Your task to perform on an android device: Show me productivity apps on the Play Store Image 0: 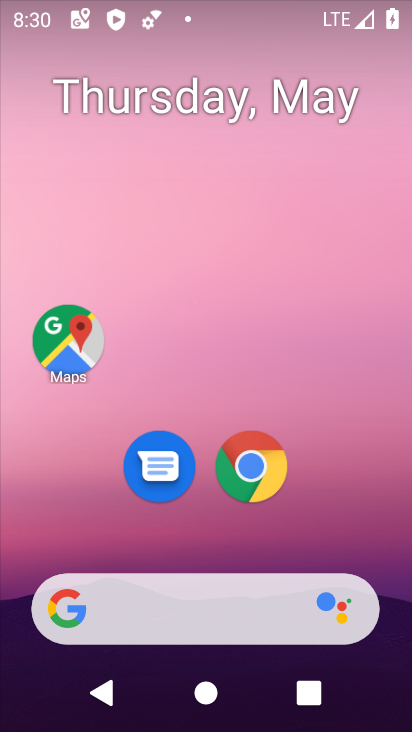
Step 0: drag from (387, 581) to (369, 31)
Your task to perform on an android device: Show me productivity apps on the Play Store Image 1: 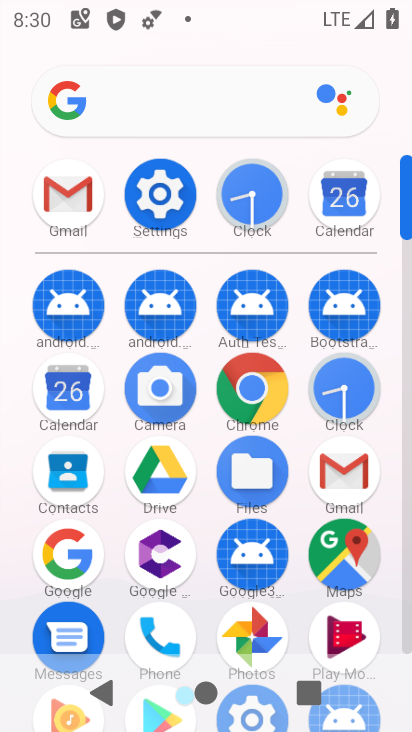
Step 1: click (405, 478)
Your task to perform on an android device: Show me productivity apps on the Play Store Image 2: 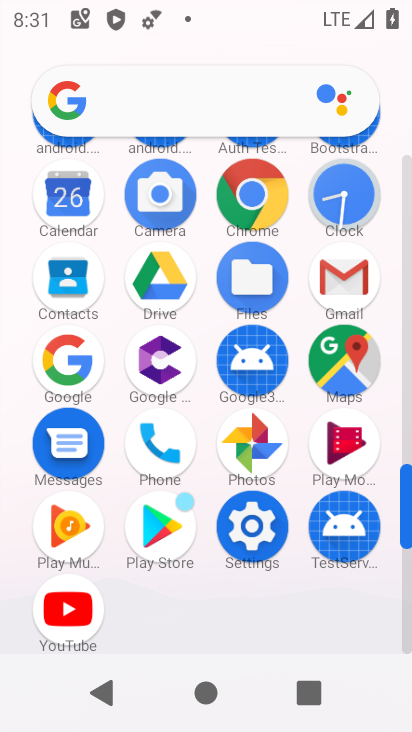
Step 2: click (150, 532)
Your task to perform on an android device: Show me productivity apps on the Play Store Image 3: 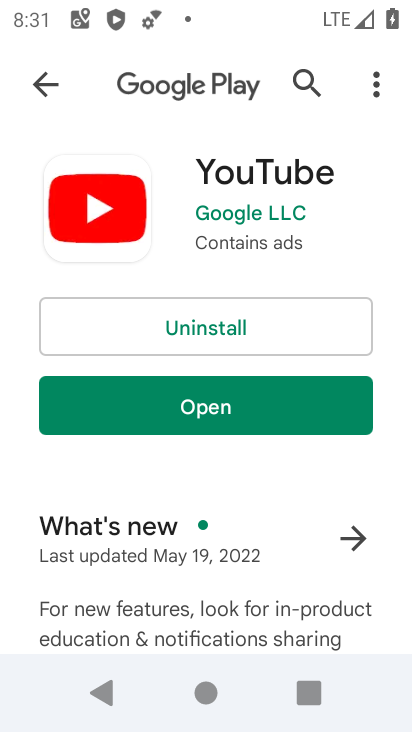
Step 3: click (46, 89)
Your task to perform on an android device: Show me productivity apps on the Play Store Image 4: 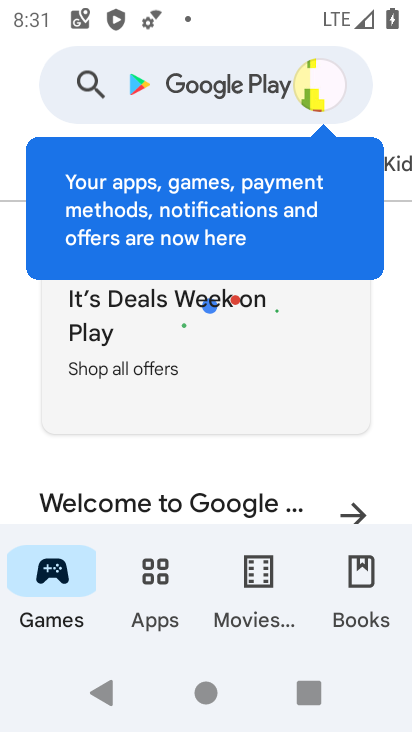
Step 4: click (136, 614)
Your task to perform on an android device: Show me productivity apps on the Play Store Image 5: 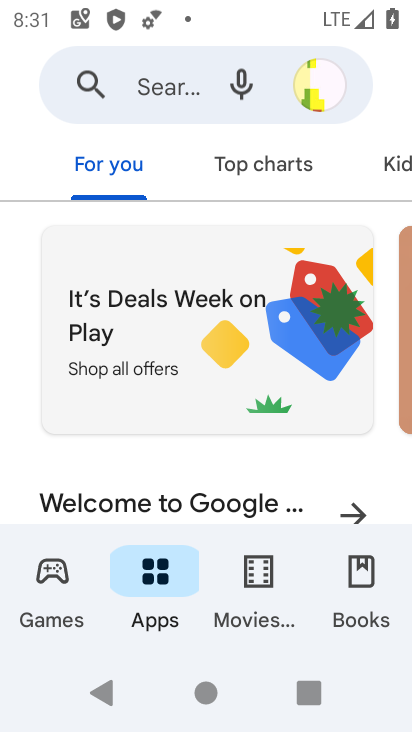
Step 5: drag from (231, 482) to (196, 127)
Your task to perform on an android device: Show me productivity apps on the Play Store Image 6: 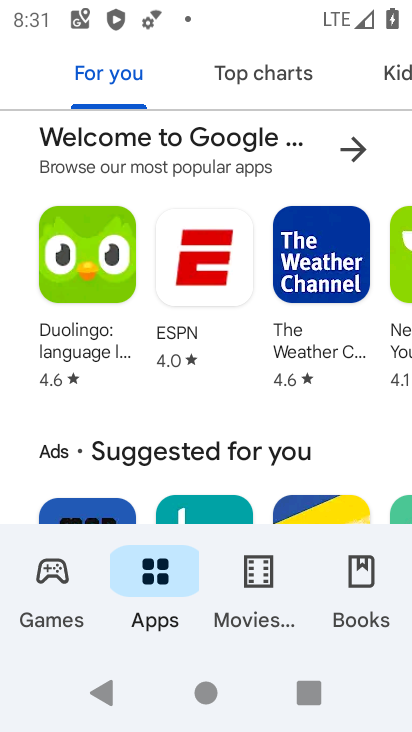
Step 6: drag from (211, 397) to (190, 90)
Your task to perform on an android device: Show me productivity apps on the Play Store Image 7: 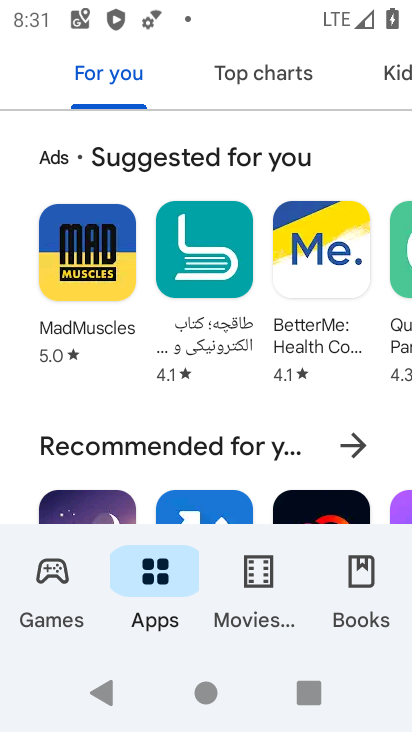
Step 7: drag from (237, 400) to (234, 93)
Your task to perform on an android device: Show me productivity apps on the Play Store Image 8: 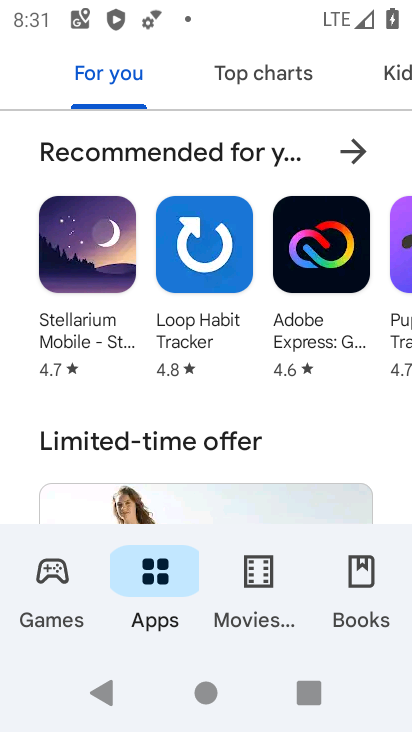
Step 8: drag from (309, 81) to (6, 134)
Your task to perform on an android device: Show me productivity apps on the Play Store Image 9: 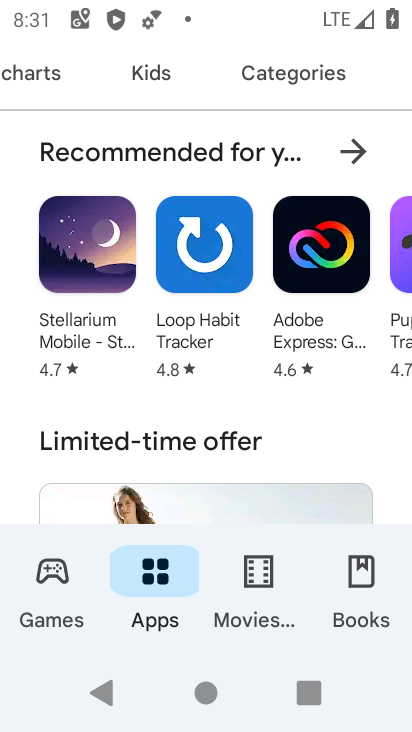
Step 9: click (275, 71)
Your task to perform on an android device: Show me productivity apps on the Play Store Image 10: 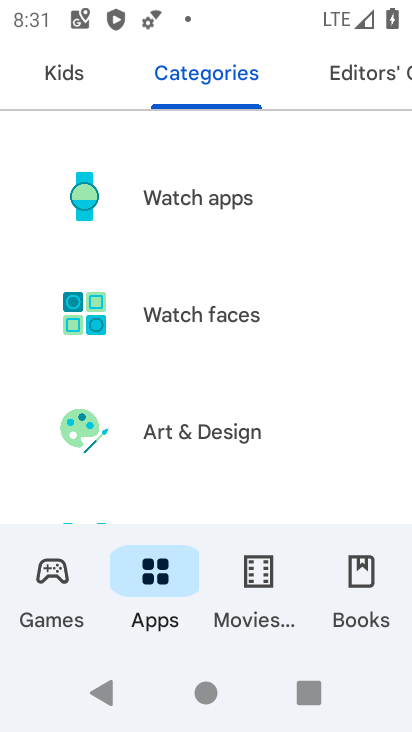
Step 10: drag from (244, 437) to (220, 6)
Your task to perform on an android device: Show me productivity apps on the Play Store Image 11: 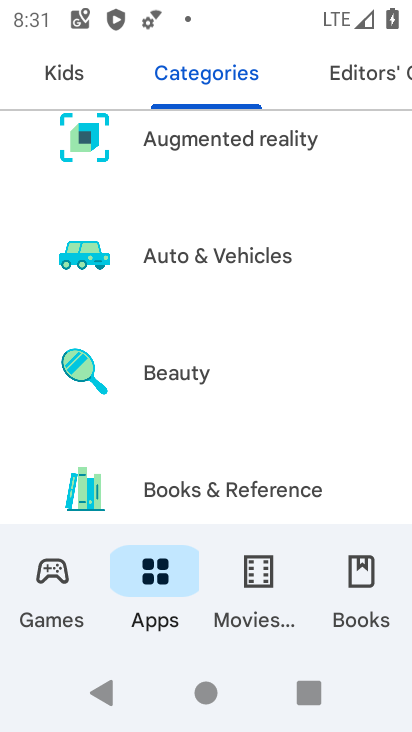
Step 11: drag from (210, 423) to (197, 26)
Your task to perform on an android device: Show me productivity apps on the Play Store Image 12: 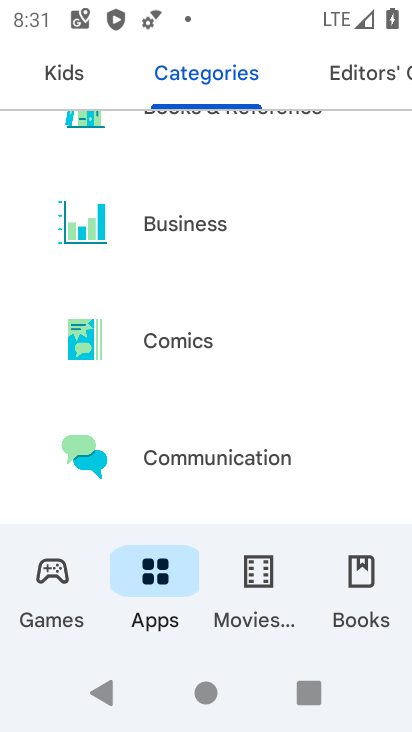
Step 12: drag from (224, 375) to (197, 81)
Your task to perform on an android device: Show me productivity apps on the Play Store Image 13: 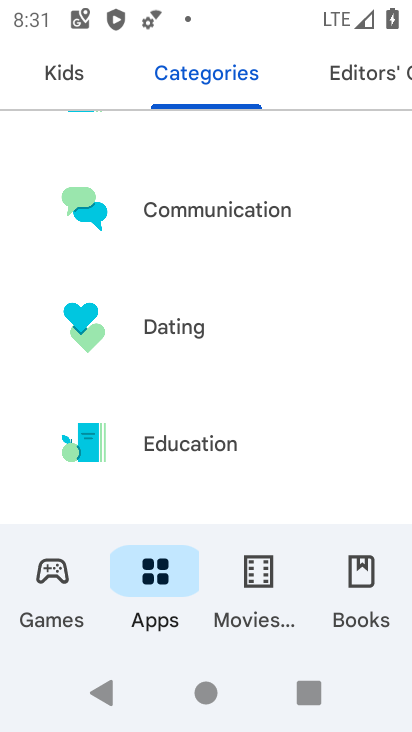
Step 13: drag from (203, 378) to (188, 84)
Your task to perform on an android device: Show me productivity apps on the Play Store Image 14: 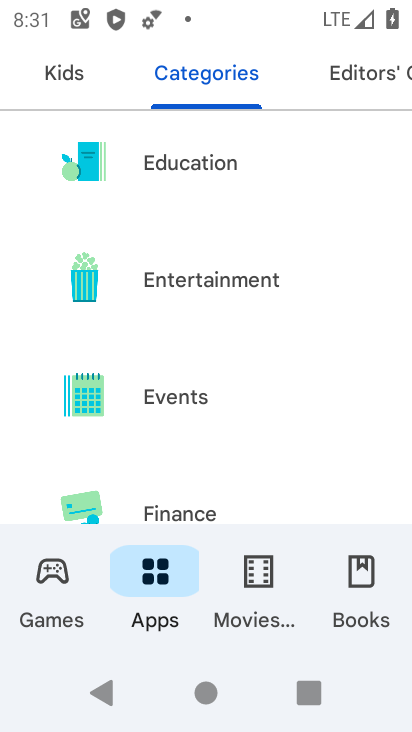
Step 14: drag from (187, 397) to (175, 127)
Your task to perform on an android device: Show me productivity apps on the Play Store Image 15: 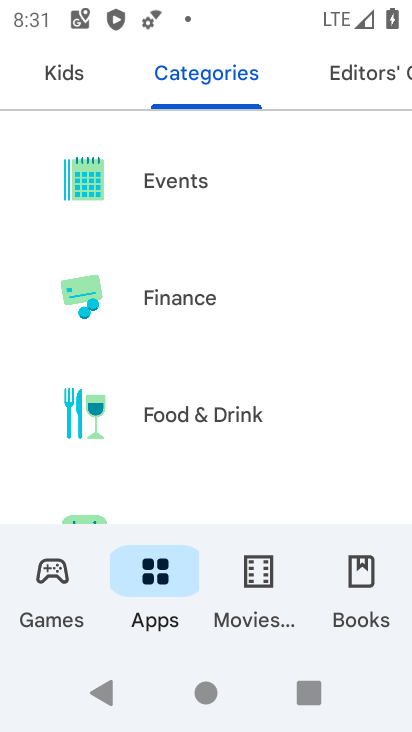
Step 15: drag from (192, 393) to (186, 64)
Your task to perform on an android device: Show me productivity apps on the Play Store Image 16: 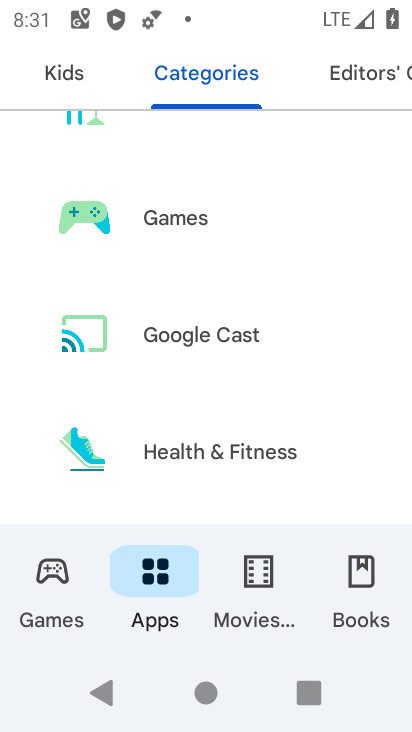
Step 16: drag from (218, 370) to (182, 84)
Your task to perform on an android device: Show me productivity apps on the Play Store Image 17: 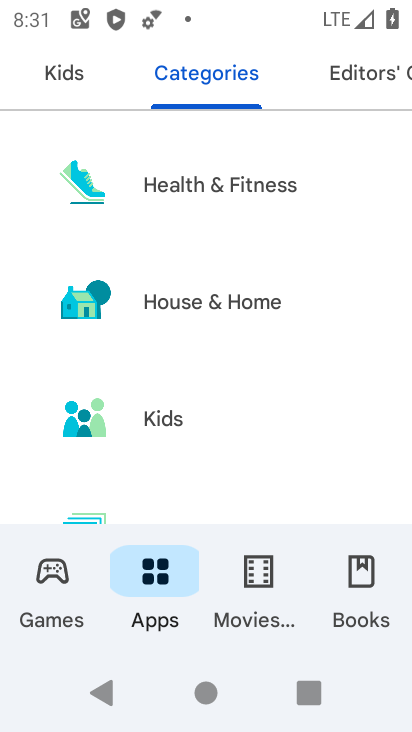
Step 17: drag from (166, 380) to (165, 72)
Your task to perform on an android device: Show me productivity apps on the Play Store Image 18: 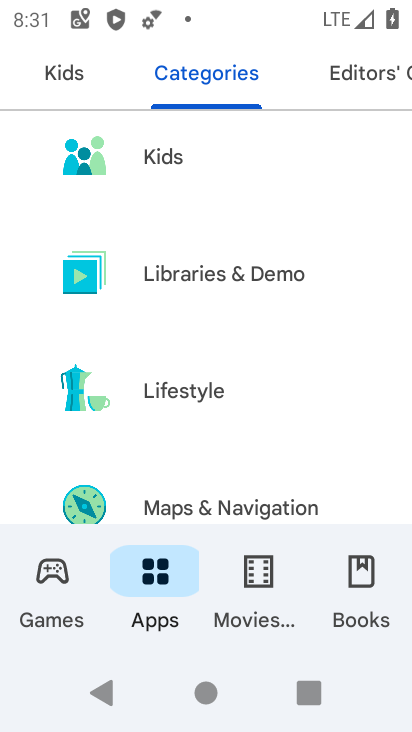
Step 18: drag from (201, 369) to (175, 101)
Your task to perform on an android device: Show me productivity apps on the Play Store Image 19: 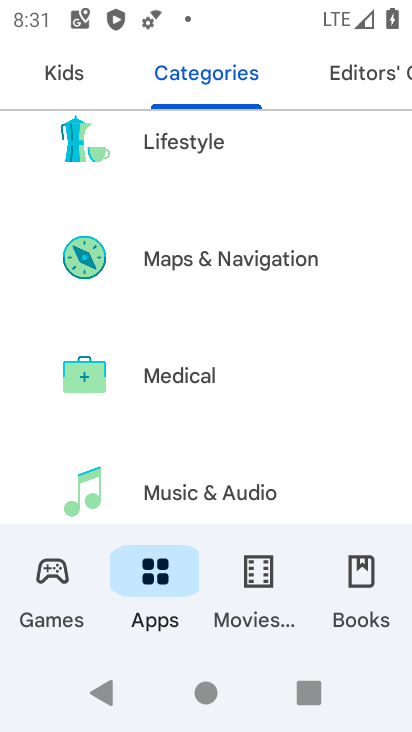
Step 19: drag from (189, 414) to (196, 118)
Your task to perform on an android device: Show me productivity apps on the Play Store Image 20: 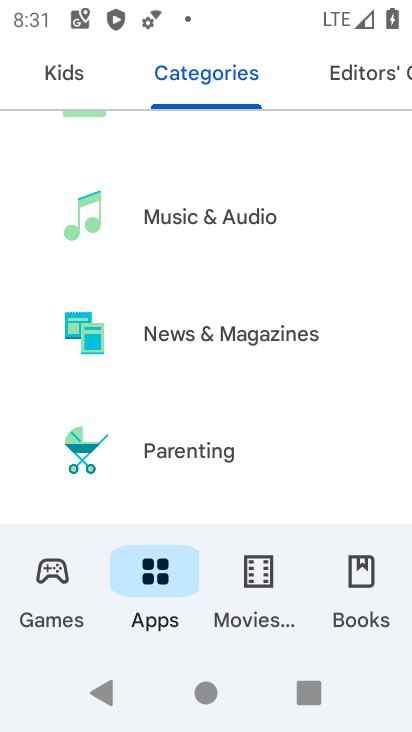
Step 20: drag from (206, 435) to (165, 134)
Your task to perform on an android device: Show me productivity apps on the Play Store Image 21: 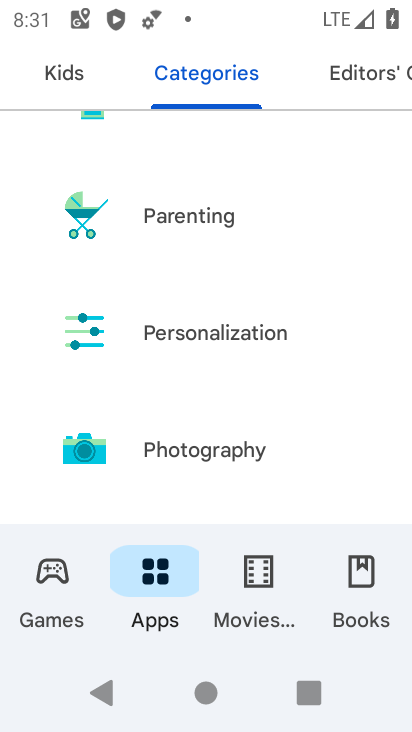
Step 21: drag from (192, 447) to (196, 215)
Your task to perform on an android device: Show me productivity apps on the Play Store Image 22: 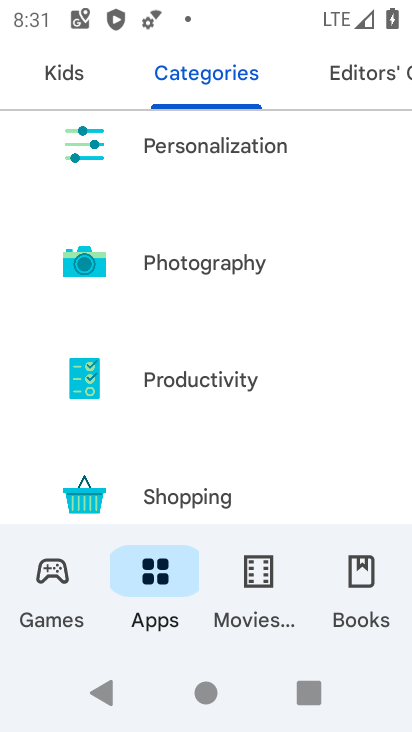
Step 22: click (199, 385)
Your task to perform on an android device: Show me productivity apps on the Play Store Image 23: 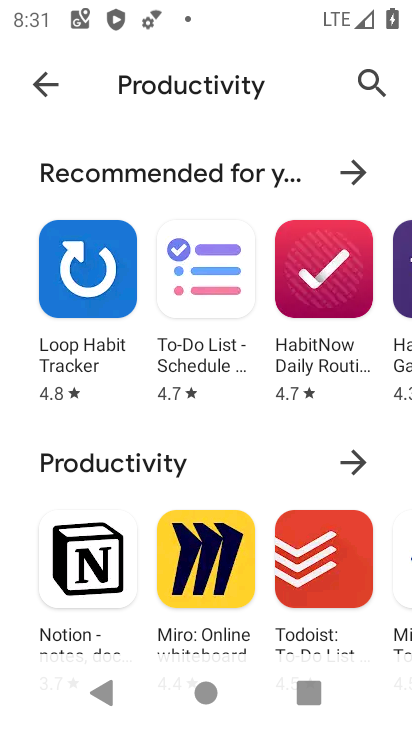
Step 23: task complete